Your task to perform on an android device: turn notification dots off Image 0: 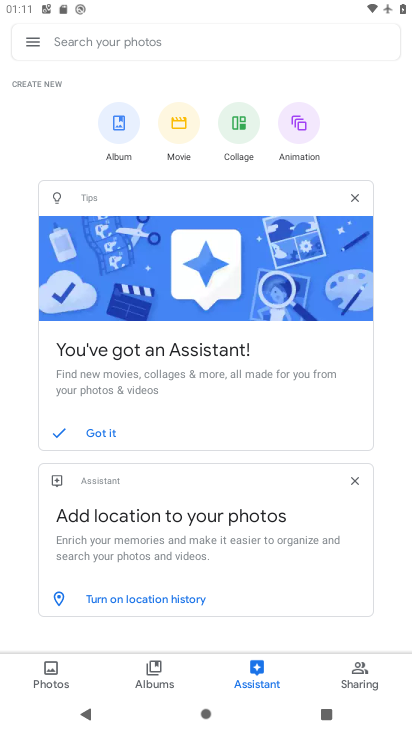
Step 0: press home button
Your task to perform on an android device: turn notification dots off Image 1: 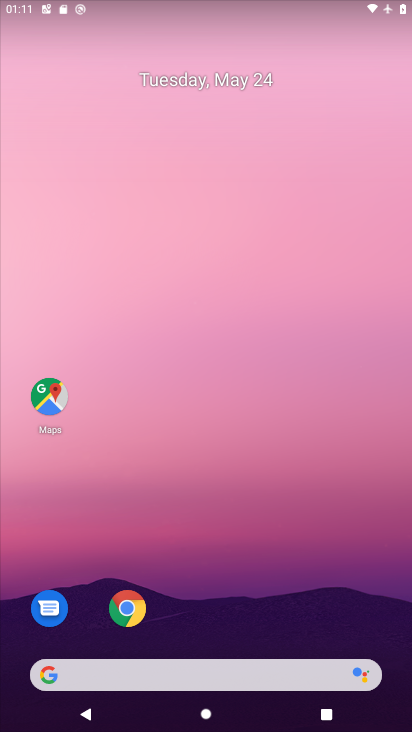
Step 1: drag from (232, 621) to (268, 53)
Your task to perform on an android device: turn notification dots off Image 2: 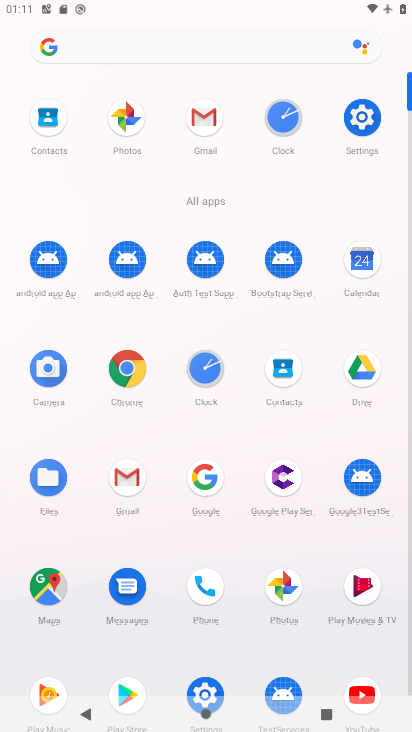
Step 2: click (381, 113)
Your task to perform on an android device: turn notification dots off Image 3: 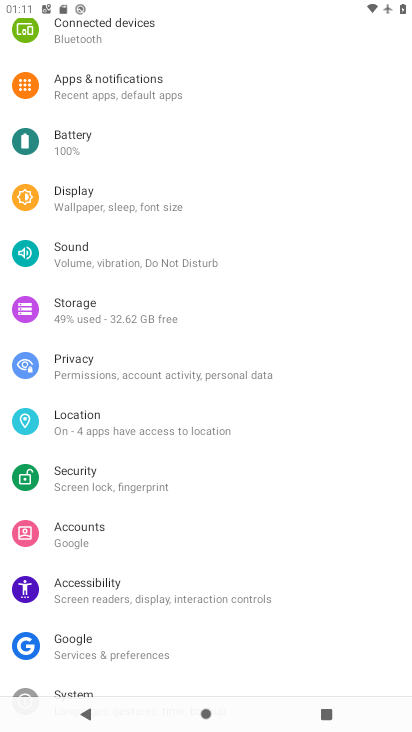
Step 3: click (179, 106)
Your task to perform on an android device: turn notification dots off Image 4: 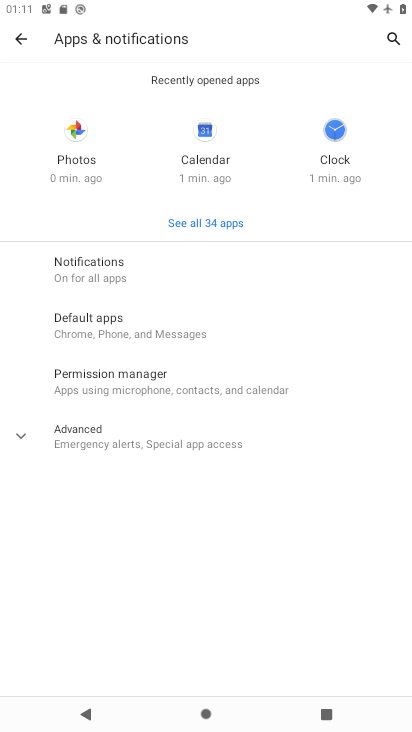
Step 4: click (219, 281)
Your task to perform on an android device: turn notification dots off Image 5: 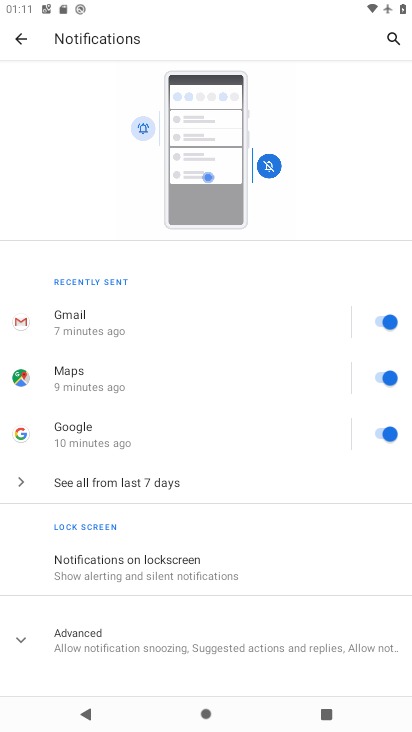
Step 5: drag from (156, 567) to (198, 315)
Your task to perform on an android device: turn notification dots off Image 6: 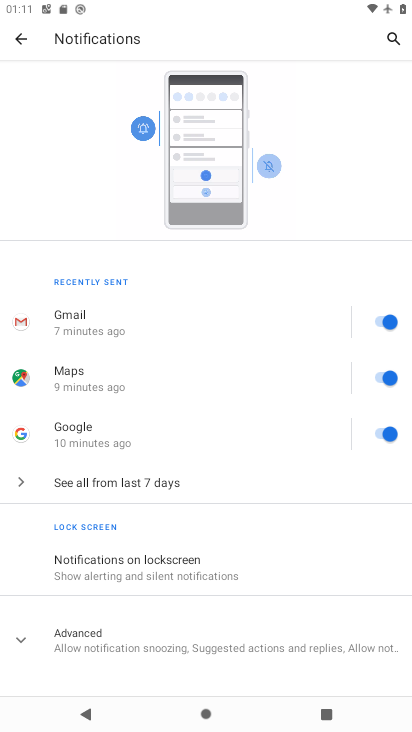
Step 6: click (139, 639)
Your task to perform on an android device: turn notification dots off Image 7: 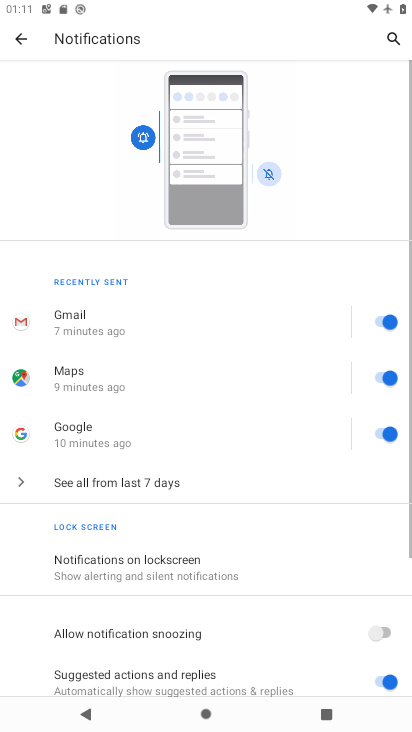
Step 7: drag from (139, 639) to (180, 297)
Your task to perform on an android device: turn notification dots off Image 8: 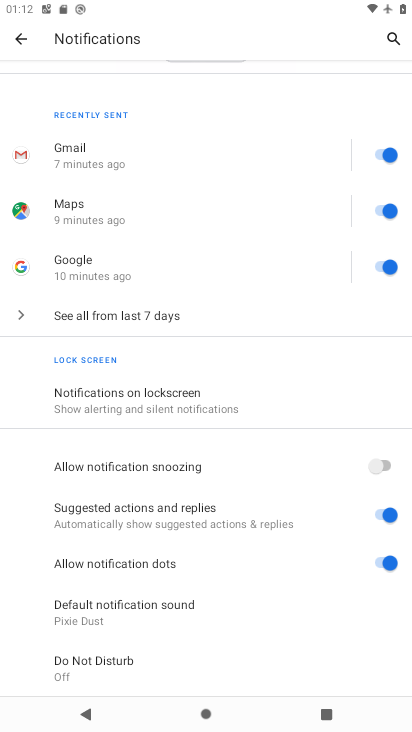
Step 8: click (250, 657)
Your task to perform on an android device: turn notification dots off Image 9: 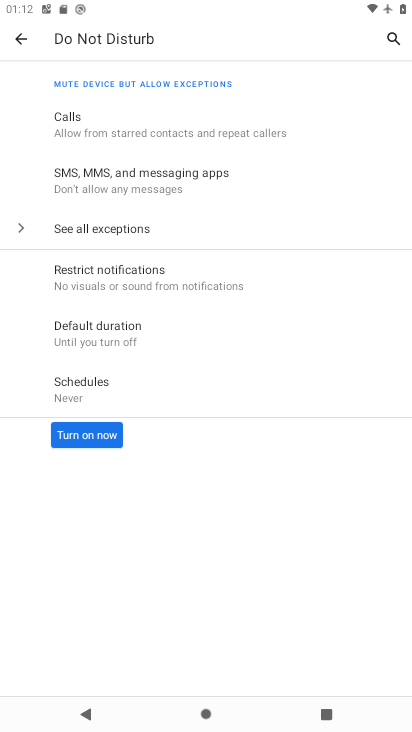
Step 9: click (115, 442)
Your task to perform on an android device: turn notification dots off Image 10: 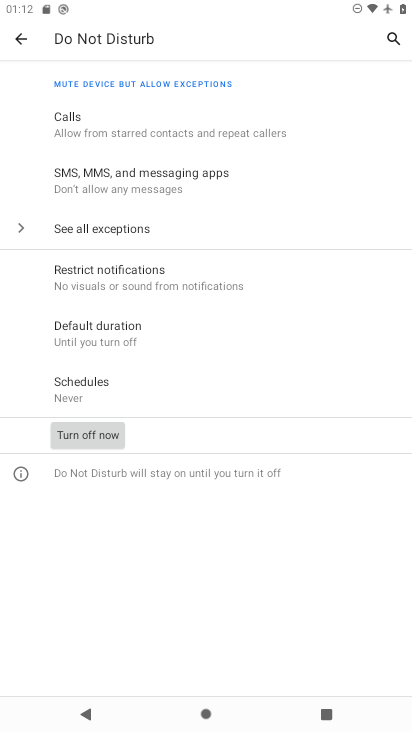
Step 10: task complete